Your task to perform on an android device: set an alarm Image 0: 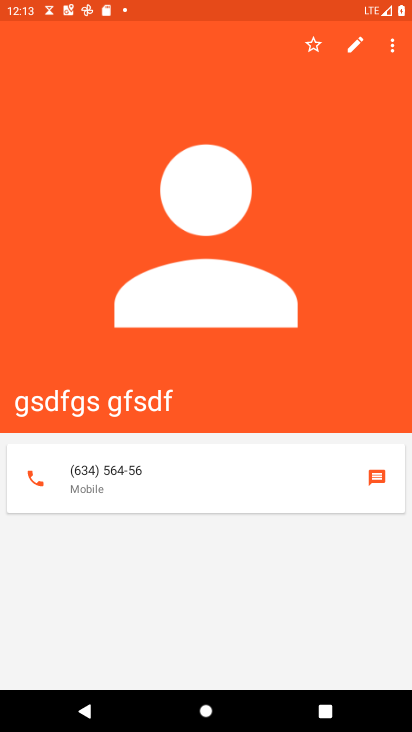
Step 0: press home button
Your task to perform on an android device: set an alarm Image 1: 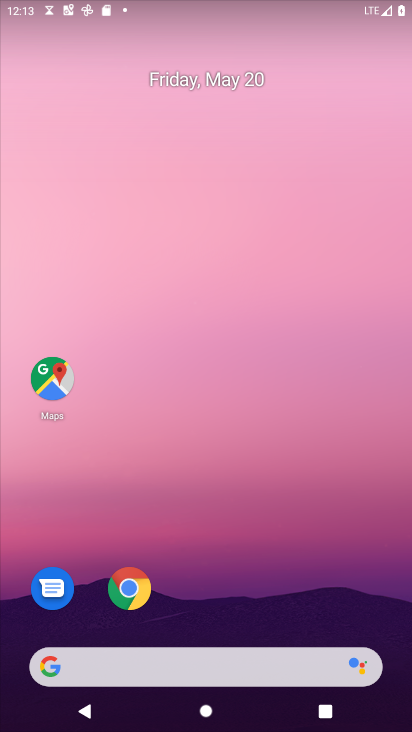
Step 1: drag from (311, 502) to (180, 25)
Your task to perform on an android device: set an alarm Image 2: 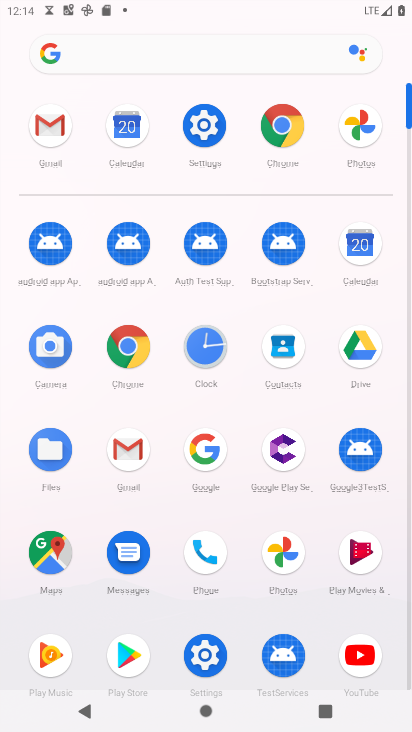
Step 2: click (204, 340)
Your task to perform on an android device: set an alarm Image 3: 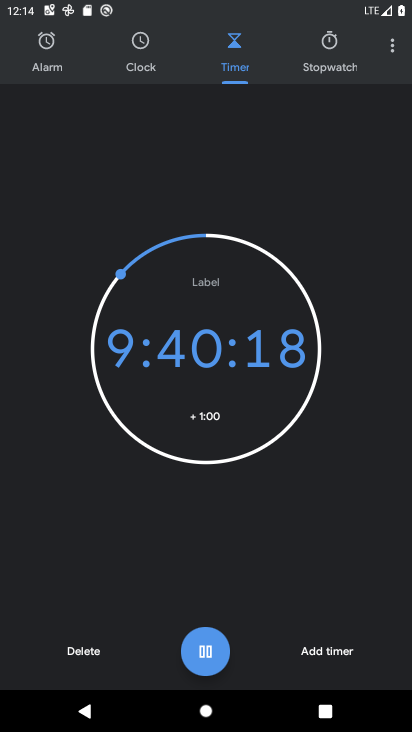
Step 3: click (48, 61)
Your task to perform on an android device: set an alarm Image 4: 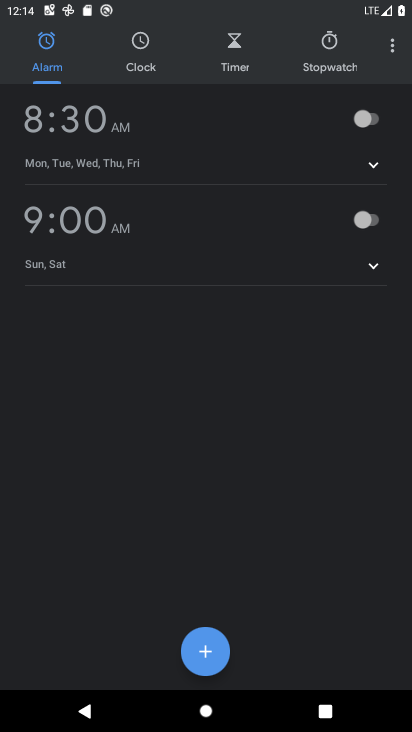
Step 4: click (375, 108)
Your task to perform on an android device: set an alarm Image 5: 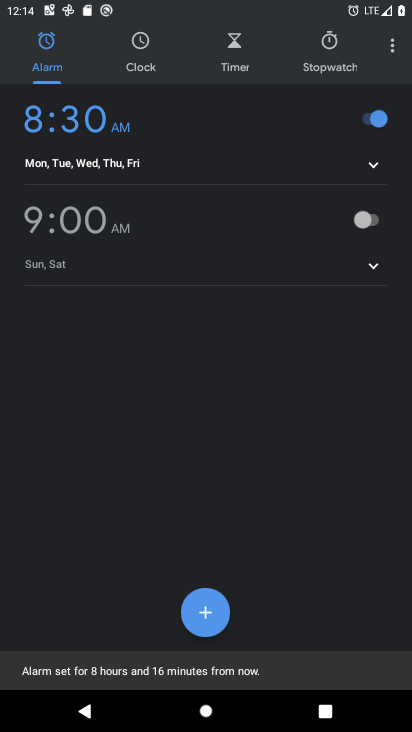
Step 5: task complete